Your task to perform on an android device: open app "Pandora - Music & Podcasts" Image 0: 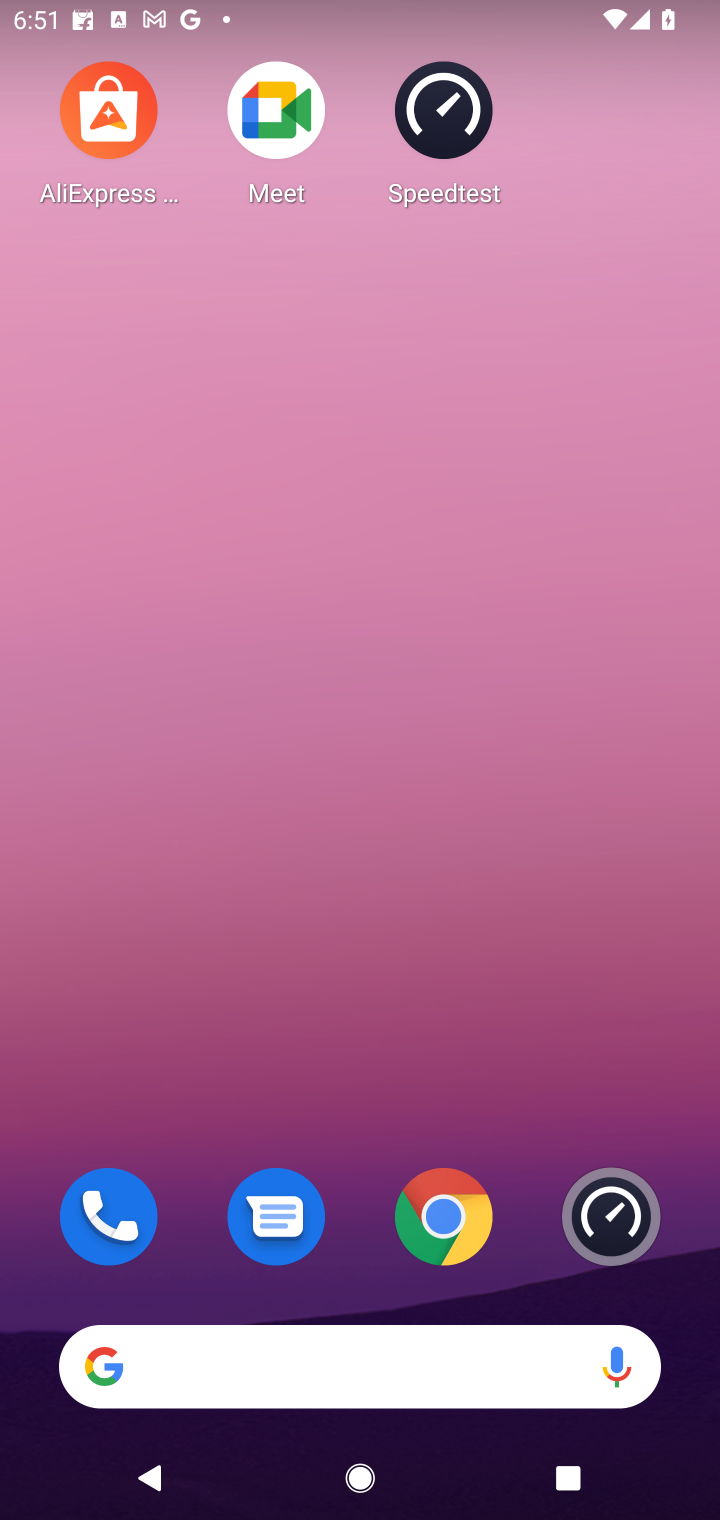
Step 0: drag from (338, 970) to (338, 241)
Your task to perform on an android device: open app "Pandora - Music & Podcasts" Image 1: 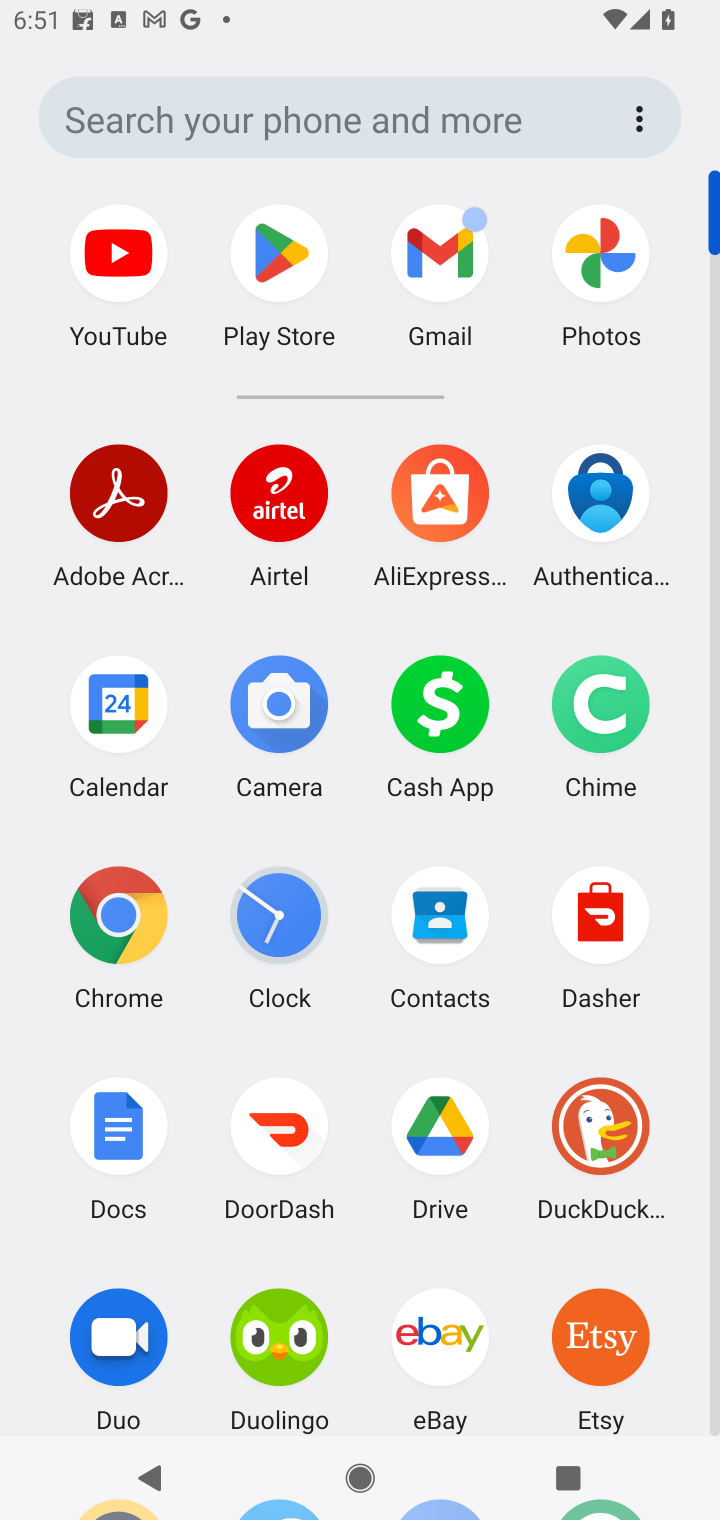
Step 1: click (309, 252)
Your task to perform on an android device: open app "Pandora - Music & Podcasts" Image 2: 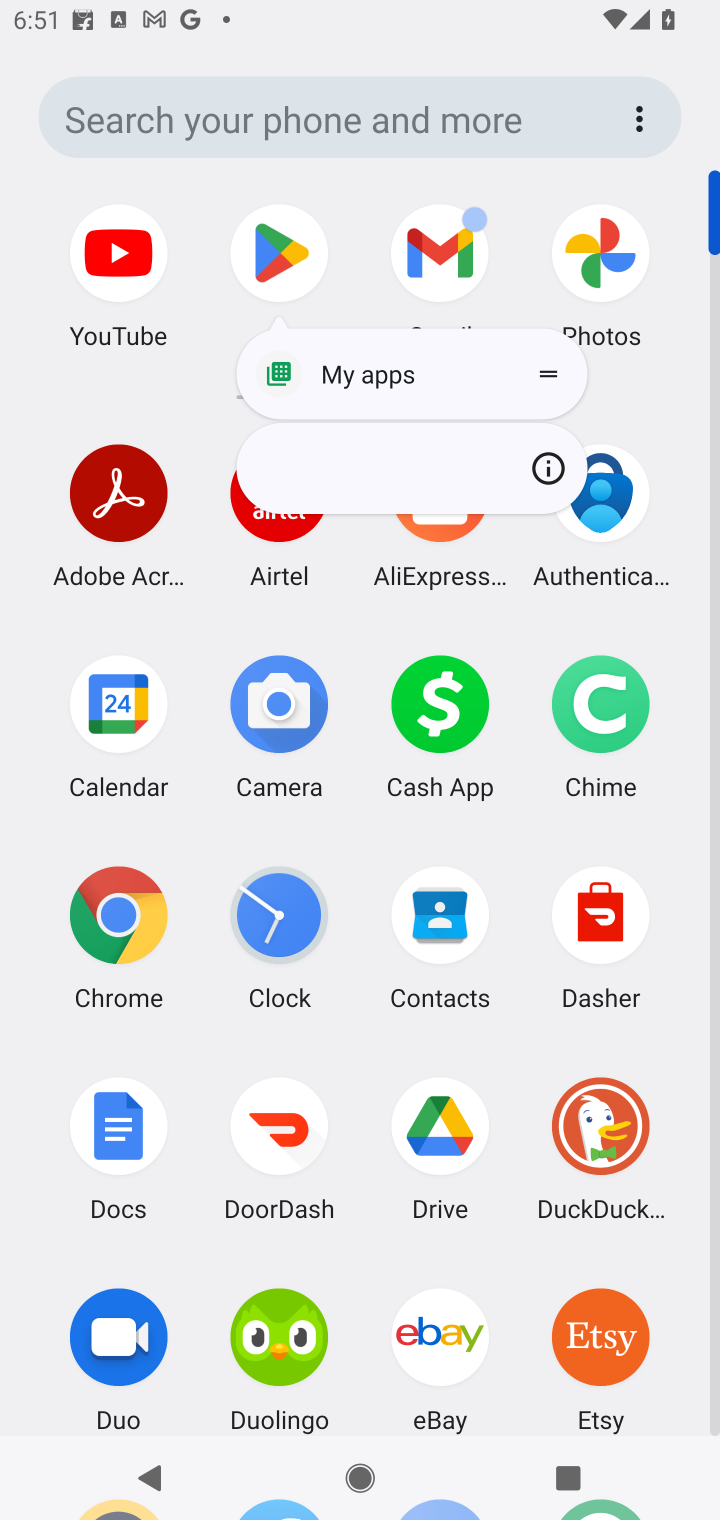
Step 2: click (273, 266)
Your task to perform on an android device: open app "Pandora - Music & Podcasts" Image 3: 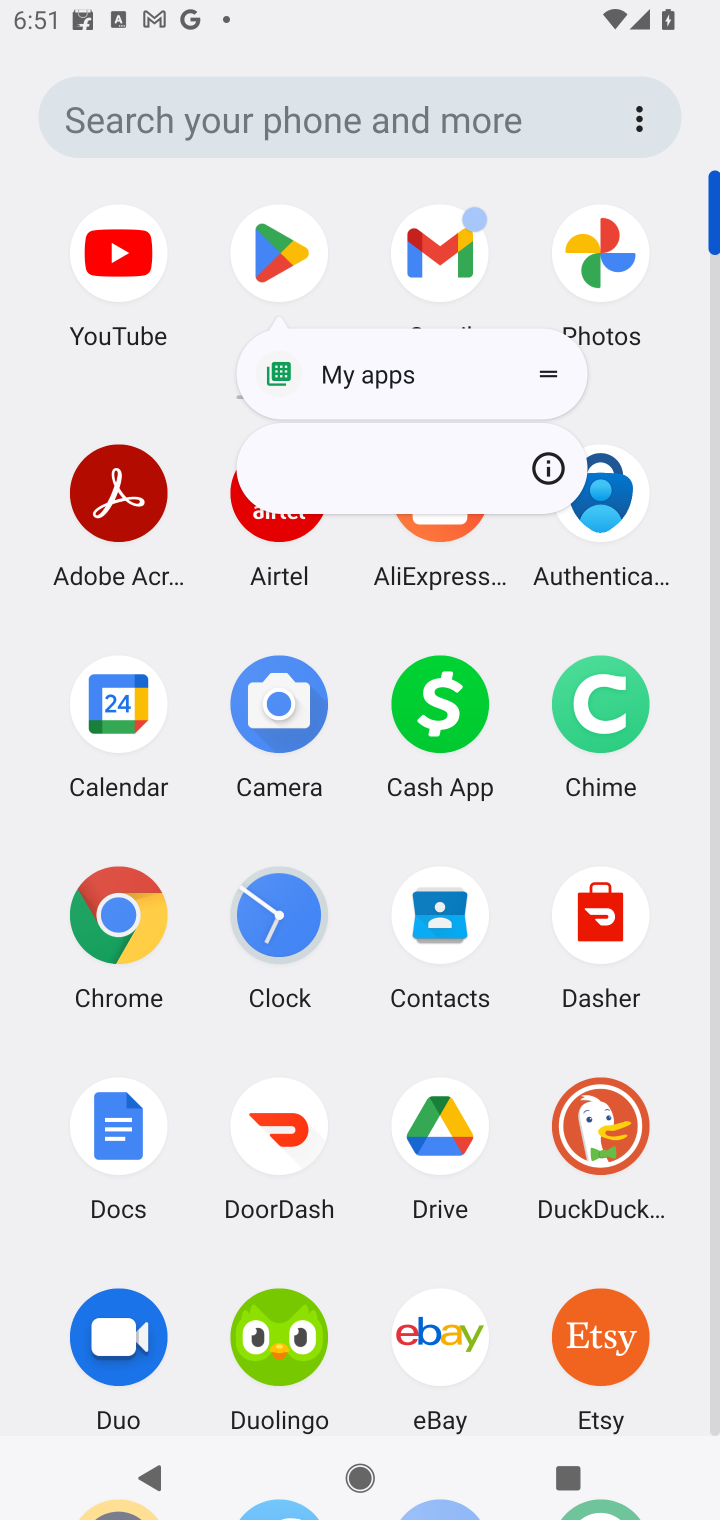
Step 3: click (259, 265)
Your task to perform on an android device: open app "Pandora - Music & Podcasts" Image 4: 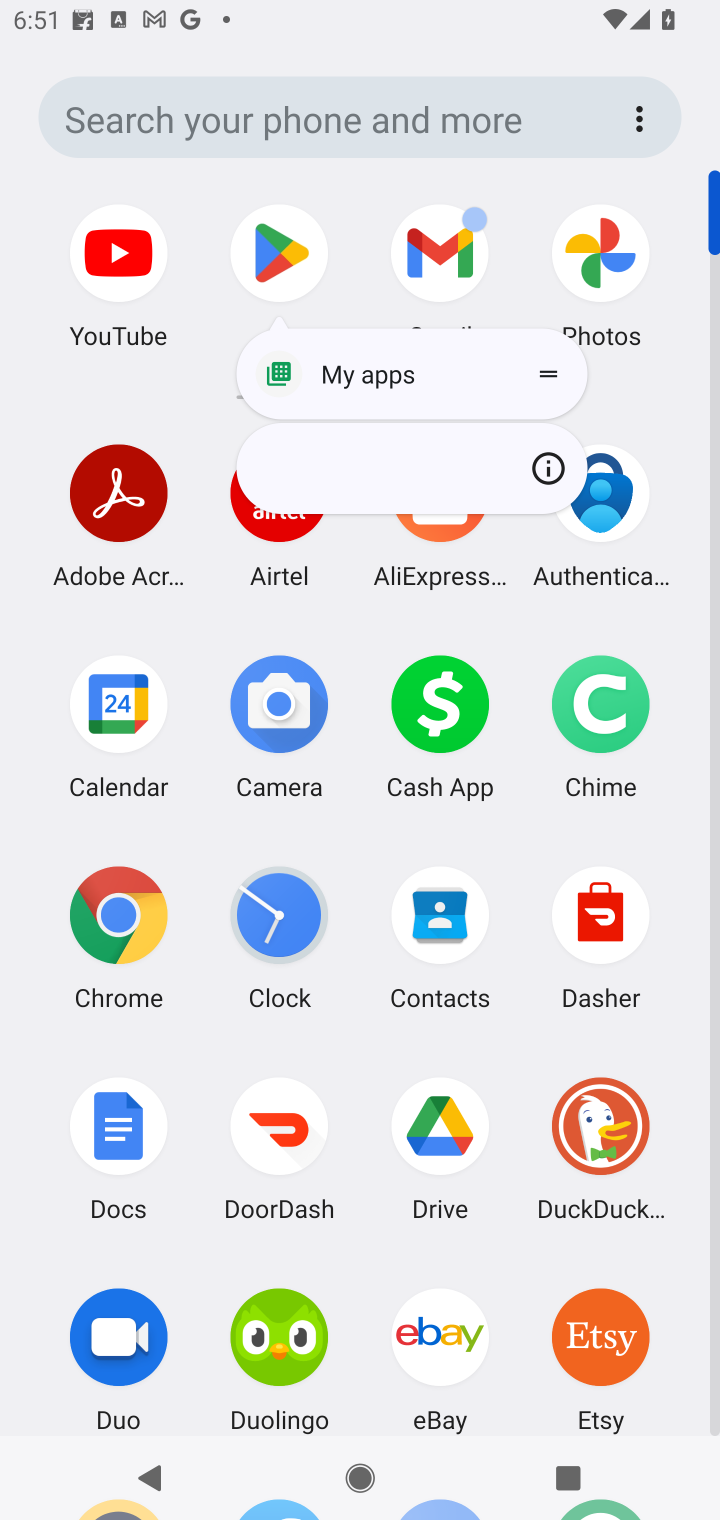
Step 4: click (281, 239)
Your task to perform on an android device: open app "Pandora - Music & Podcasts" Image 5: 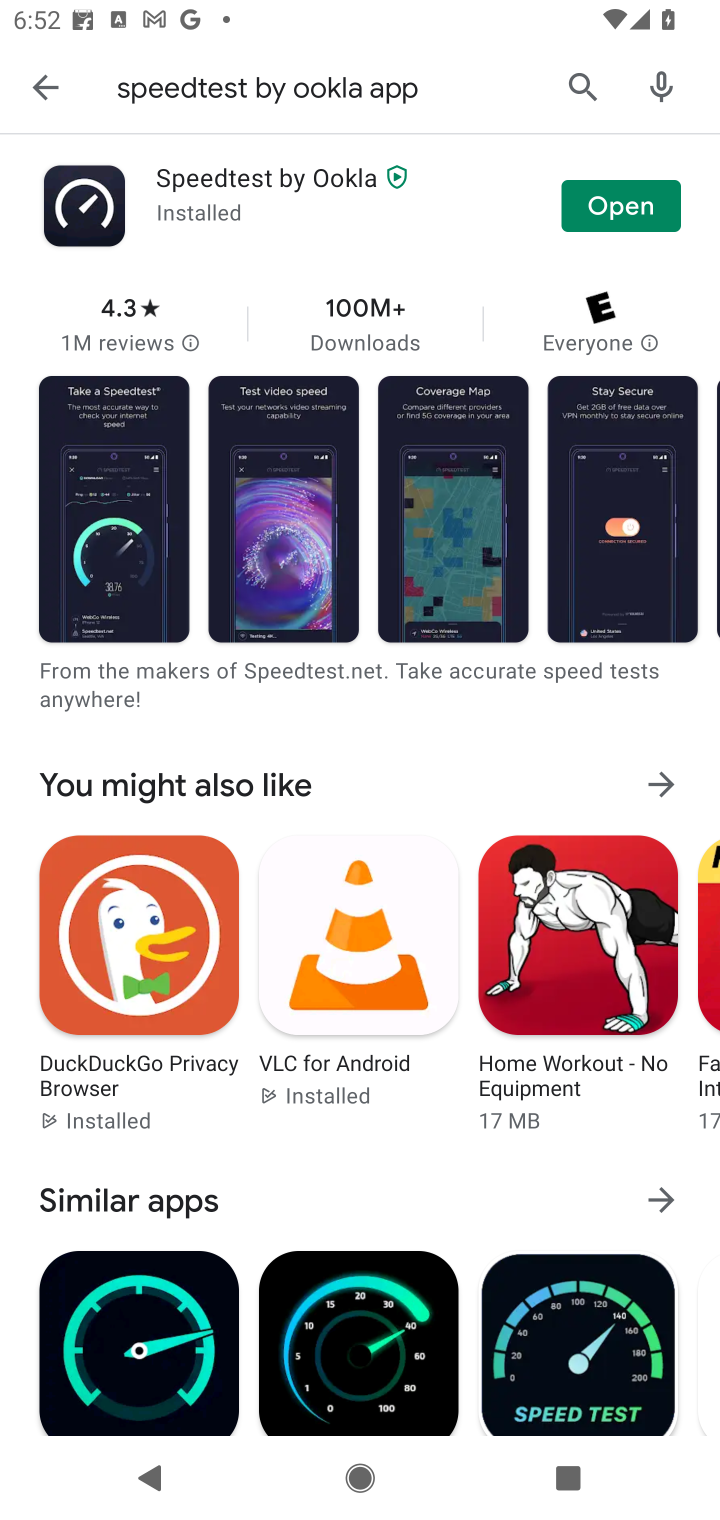
Step 5: click (593, 87)
Your task to perform on an android device: open app "Pandora - Music & Podcasts" Image 6: 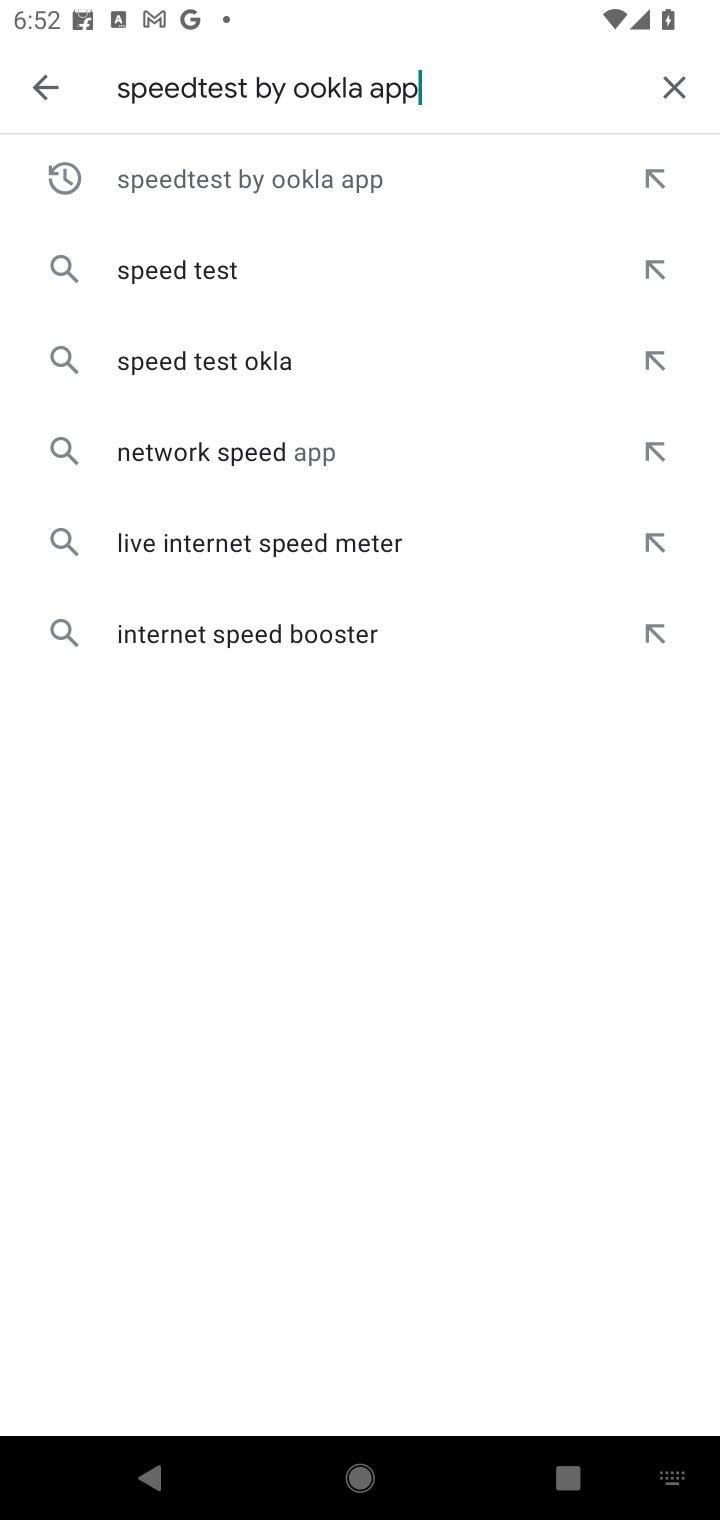
Step 6: click (673, 79)
Your task to perform on an android device: open app "Pandora - Music & Podcasts" Image 7: 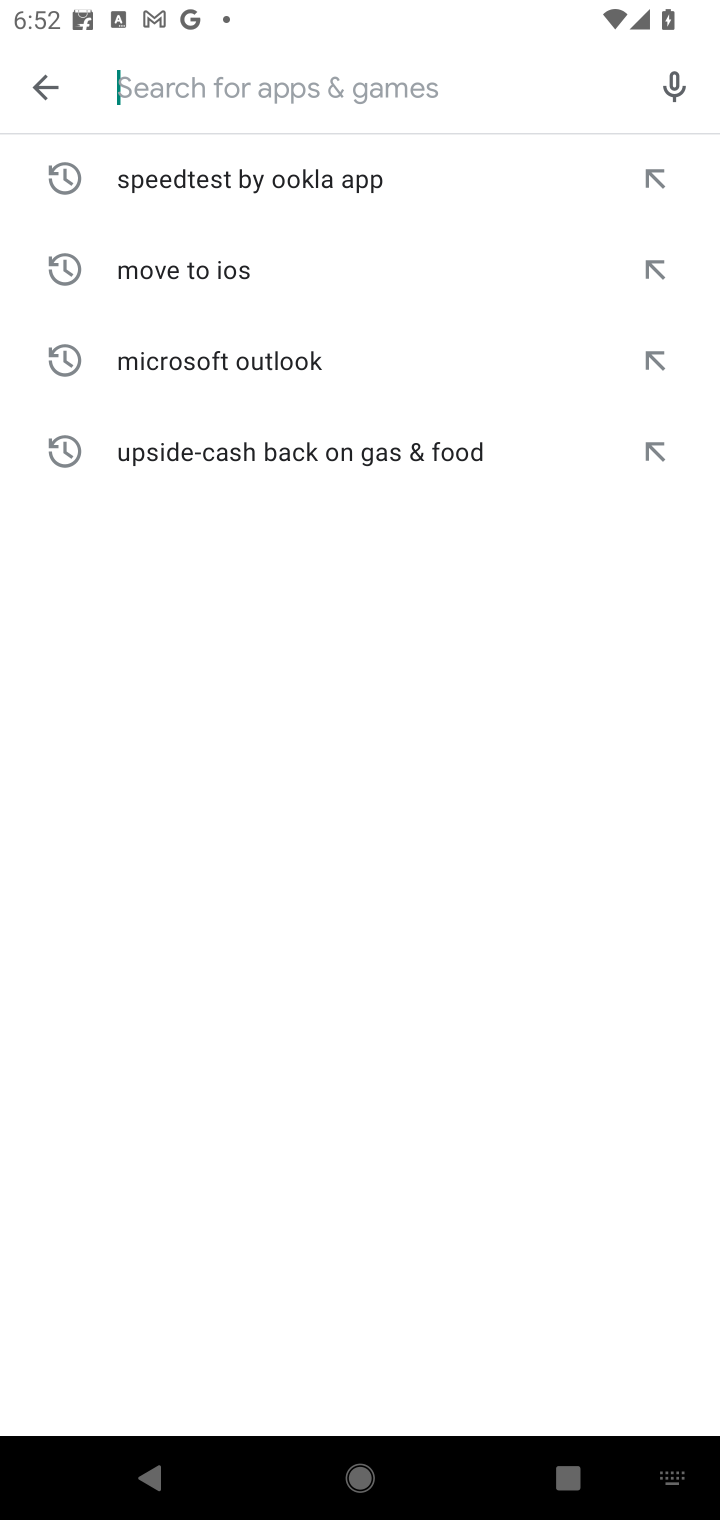
Step 7: type "Pandora - Music & Podcast"
Your task to perform on an android device: open app "Pandora - Music & Podcasts" Image 8: 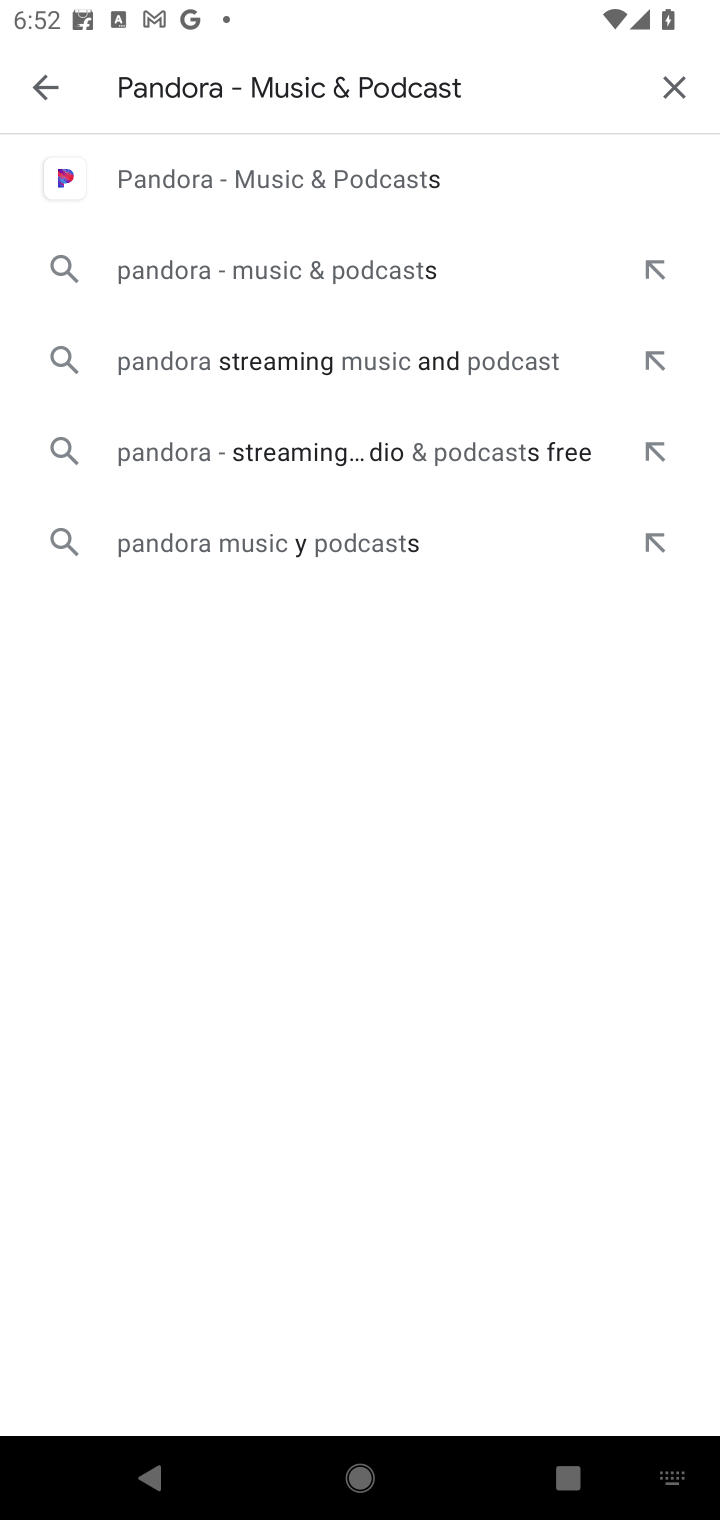
Step 8: click (291, 184)
Your task to perform on an android device: open app "Pandora - Music & Podcasts" Image 9: 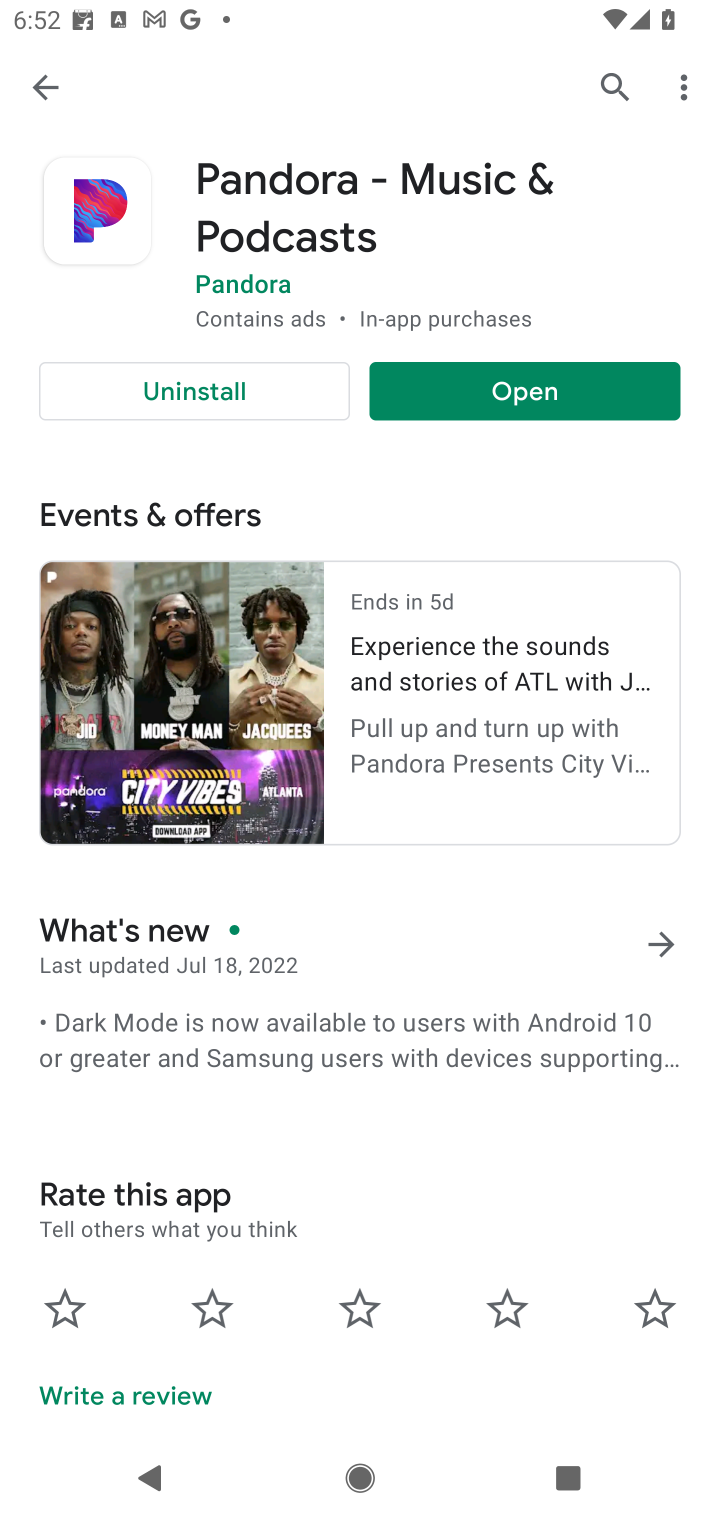
Step 9: click (513, 398)
Your task to perform on an android device: open app "Pandora - Music & Podcasts" Image 10: 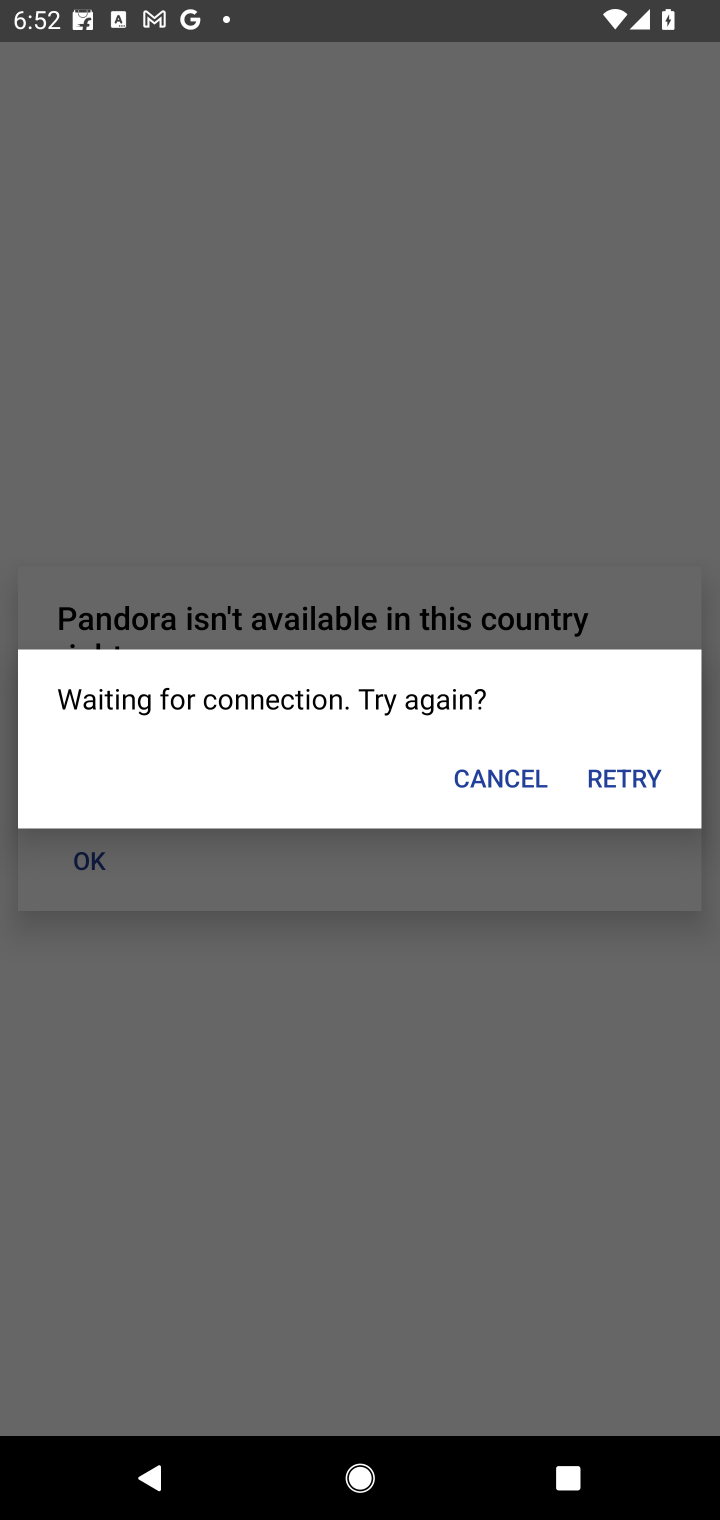
Step 10: task complete